Your task to perform on an android device: Go to settings Image 0: 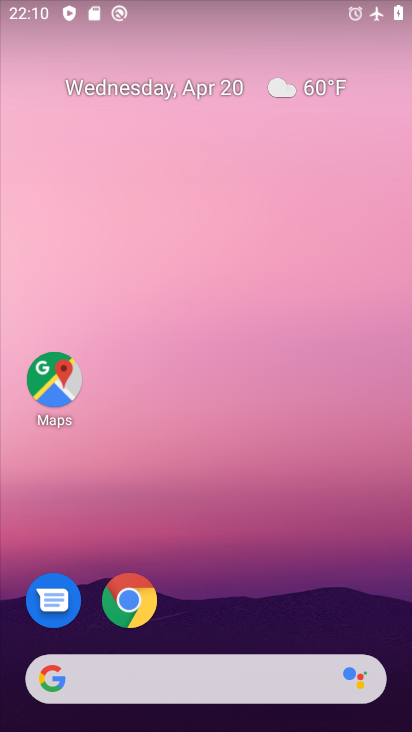
Step 0: drag from (216, 651) to (193, 48)
Your task to perform on an android device: Go to settings Image 1: 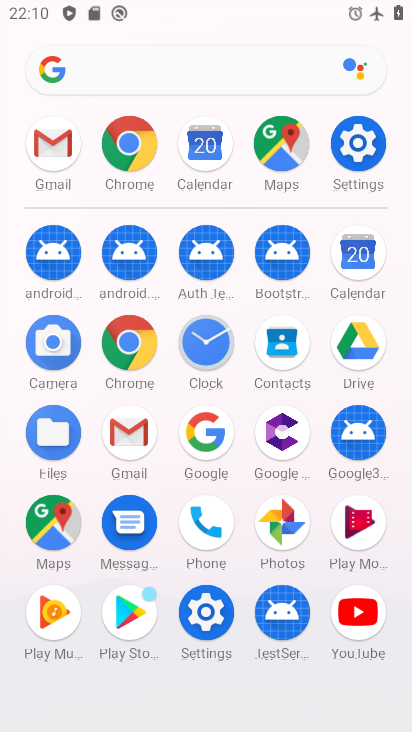
Step 1: click (195, 614)
Your task to perform on an android device: Go to settings Image 2: 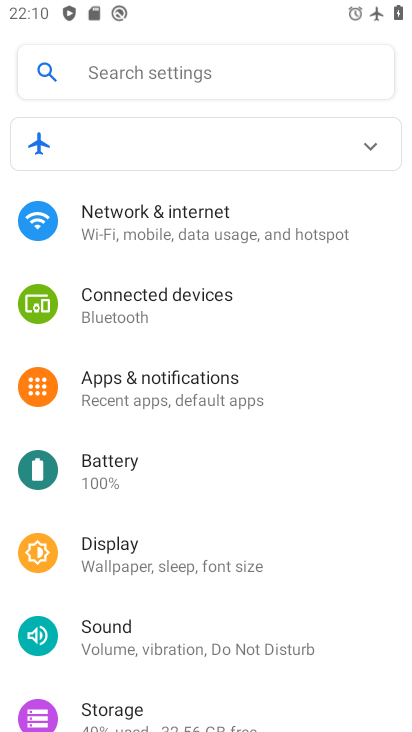
Step 2: task complete